Your task to perform on an android device: Go to network settings Image 0: 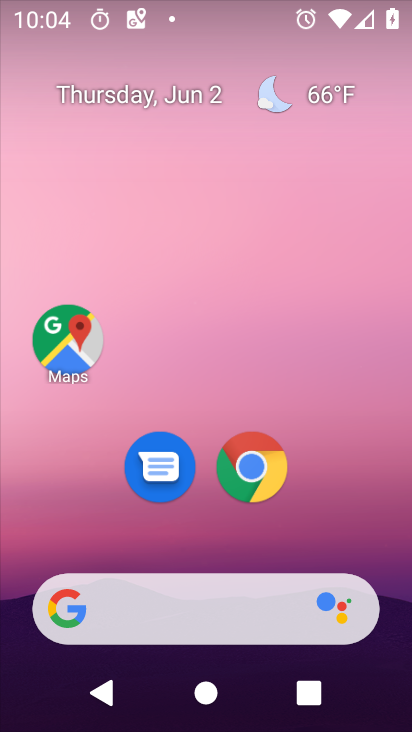
Step 0: drag from (55, 574) to (230, 193)
Your task to perform on an android device: Go to network settings Image 1: 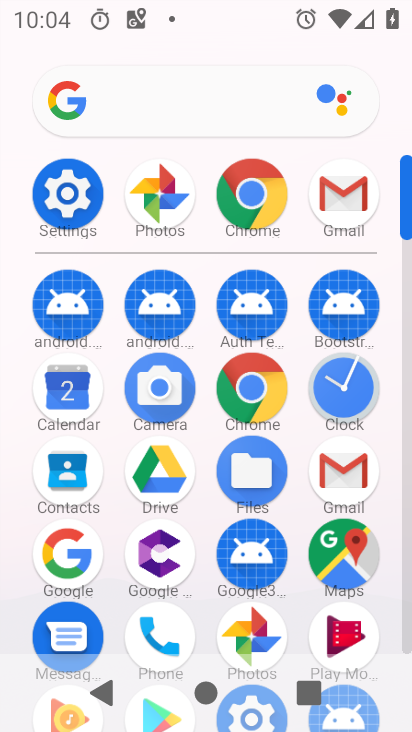
Step 1: click (64, 205)
Your task to perform on an android device: Go to network settings Image 2: 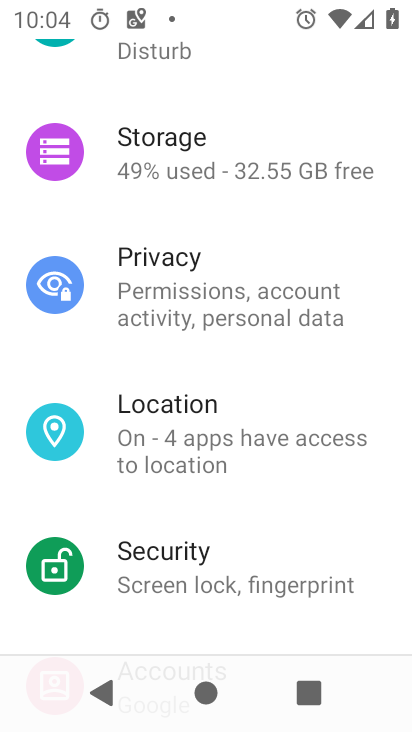
Step 2: drag from (178, 136) to (160, 633)
Your task to perform on an android device: Go to network settings Image 3: 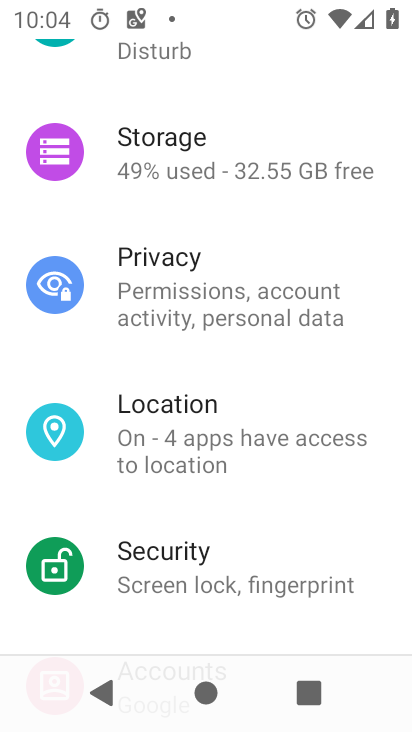
Step 3: drag from (93, 142) to (122, 618)
Your task to perform on an android device: Go to network settings Image 4: 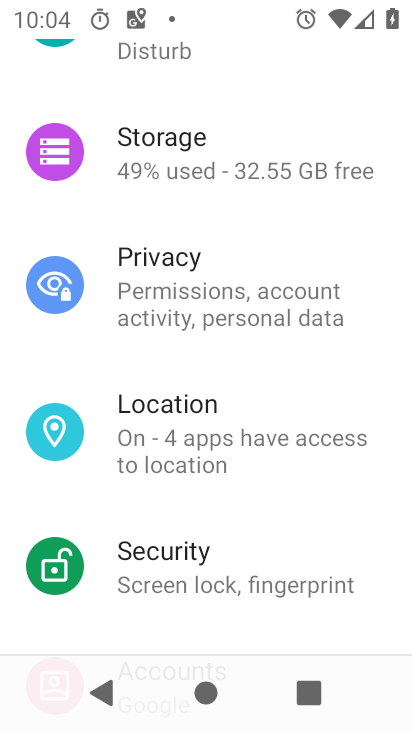
Step 4: drag from (123, 144) to (178, 494)
Your task to perform on an android device: Go to network settings Image 5: 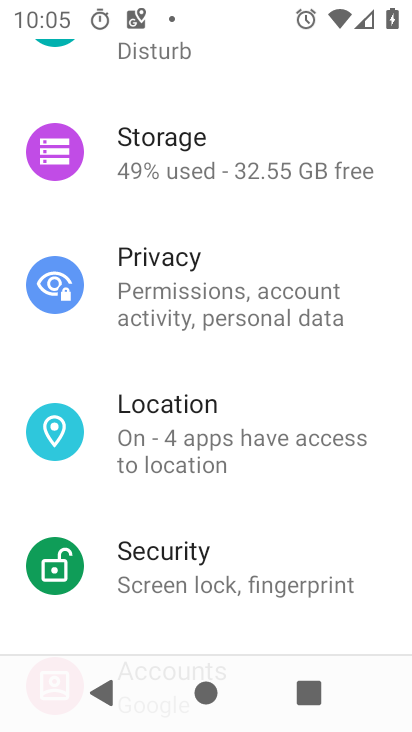
Step 5: drag from (276, 147) to (215, 585)
Your task to perform on an android device: Go to network settings Image 6: 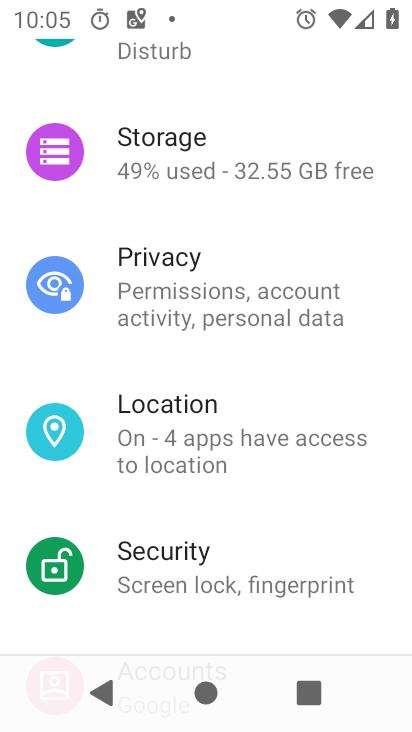
Step 6: drag from (155, 112) to (165, 594)
Your task to perform on an android device: Go to network settings Image 7: 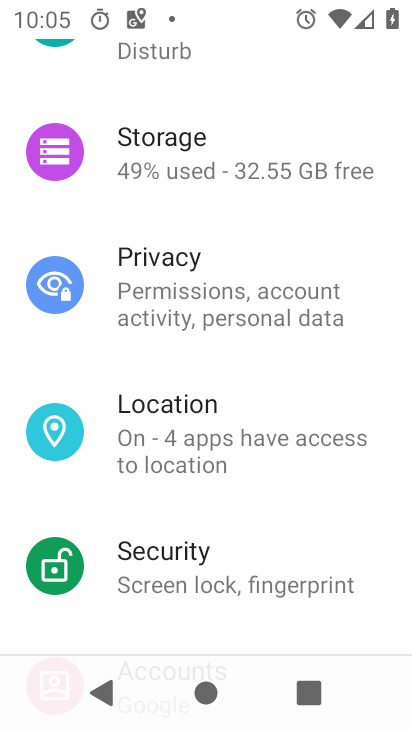
Step 7: drag from (4, 109) to (151, 559)
Your task to perform on an android device: Go to network settings Image 8: 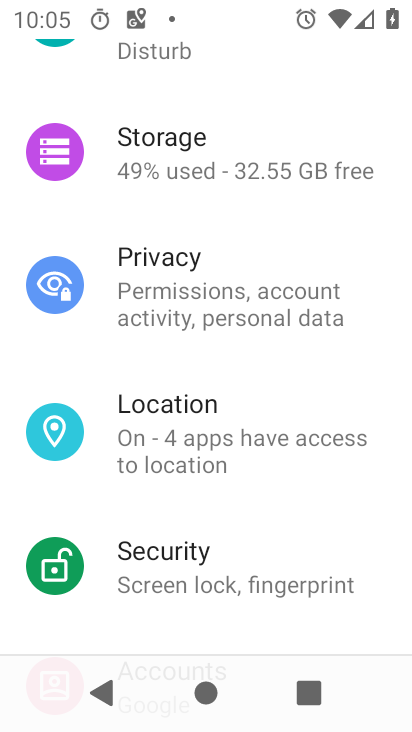
Step 8: drag from (394, 168) to (369, 192)
Your task to perform on an android device: Go to network settings Image 9: 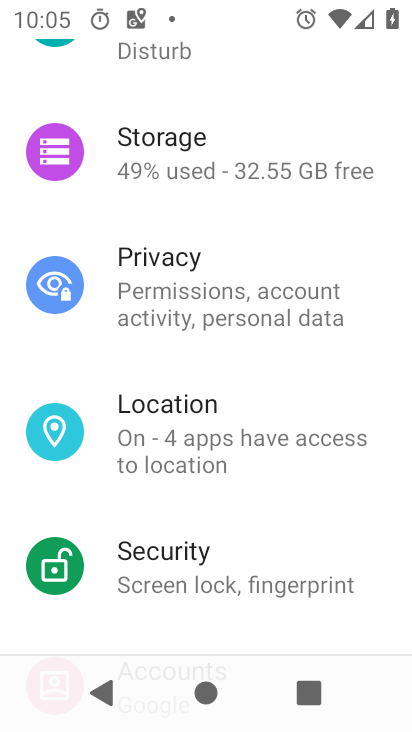
Step 9: drag from (161, 154) to (159, 609)
Your task to perform on an android device: Go to network settings Image 10: 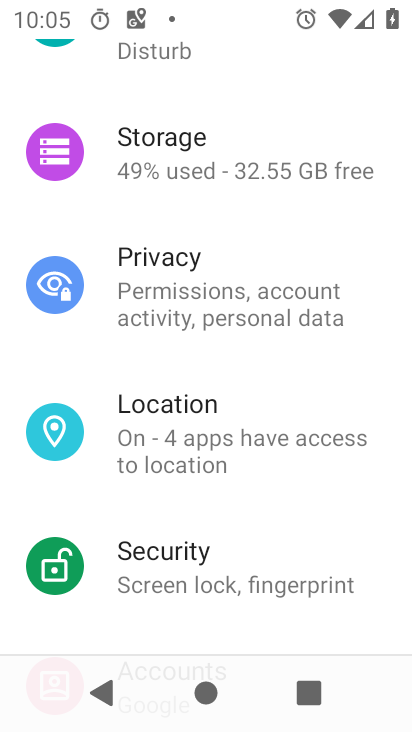
Step 10: drag from (142, 110) to (277, 727)
Your task to perform on an android device: Go to network settings Image 11: 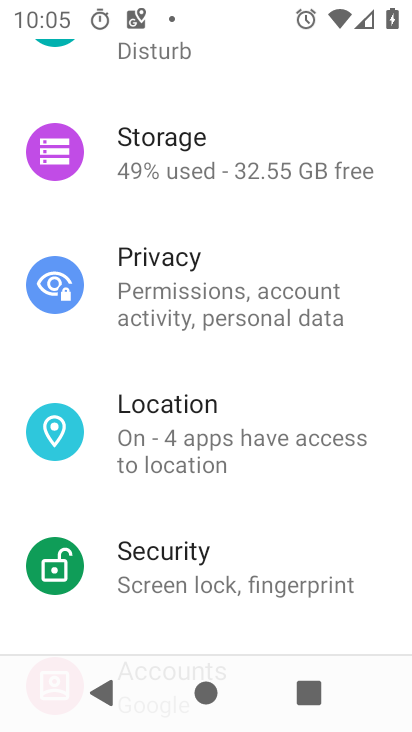
Step 11: drag from (310, 139) to (231, 521)
Your task to perform on an android device: Go to network settings Image 12: 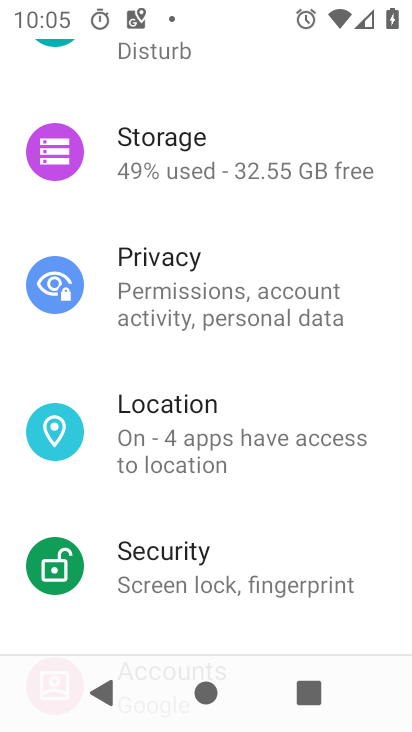
Step 12: drag from (125, 135) to (116, 526)
Your task to perform on an android device: Go to network settings Image 13: 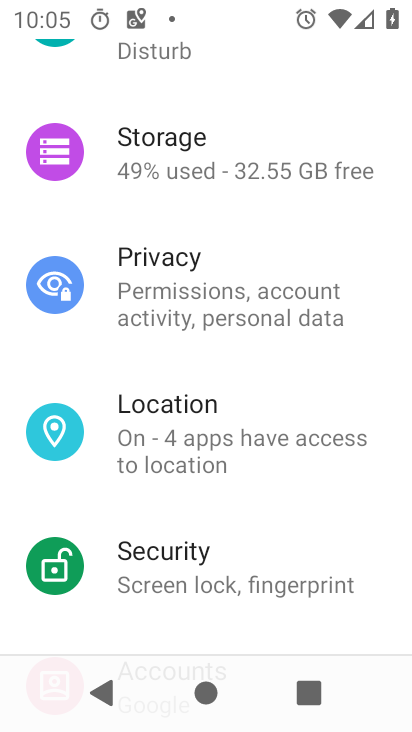
Step 13: drag from (408, 110) to (174, 542)
Your task to perform on an android device: Go to network settings Image 14: 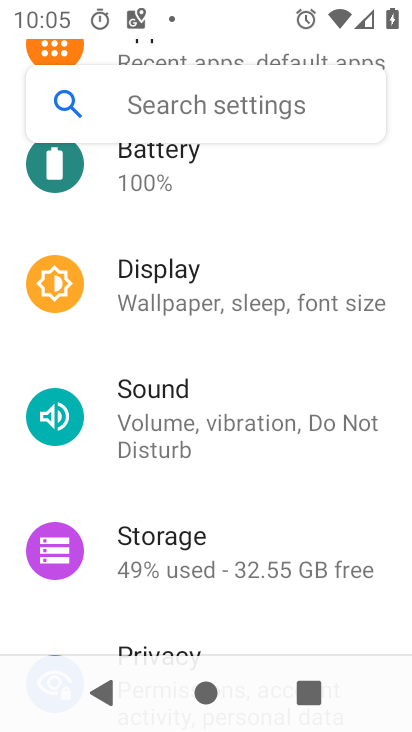
Step 14: drag from (273, 167) to (188, 442)
Your task to perform on an android device: Go to network settings Image 15: 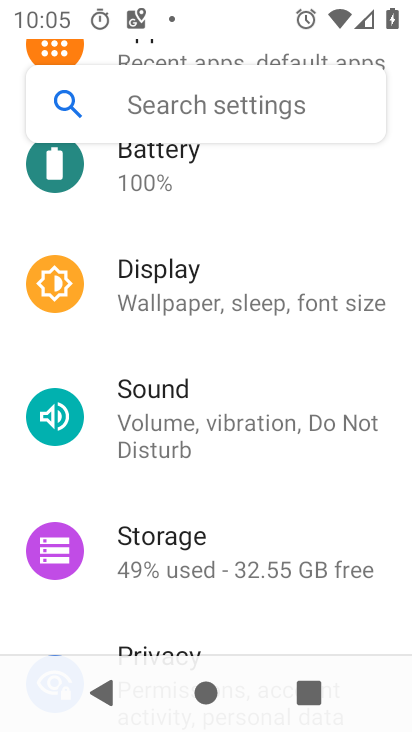
Step 15: drag from (315, 193) to (178, 570)
Your task to perform on an android device: Go to network settings Image 16: 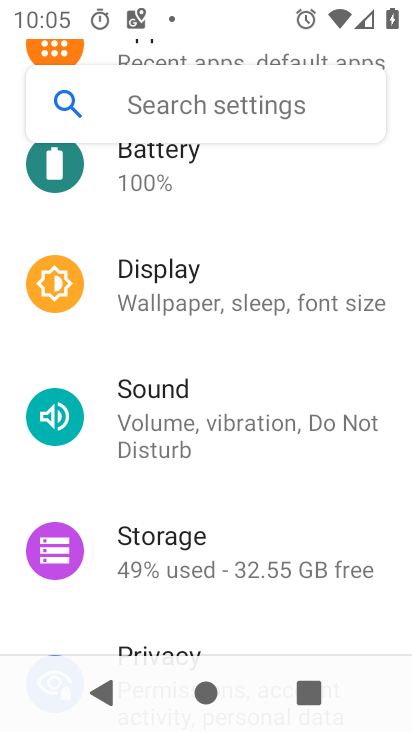
Step 16: drag from (398, 168) to (277, 621)
Your task to perform on an android device: Go to network settings Image 17: 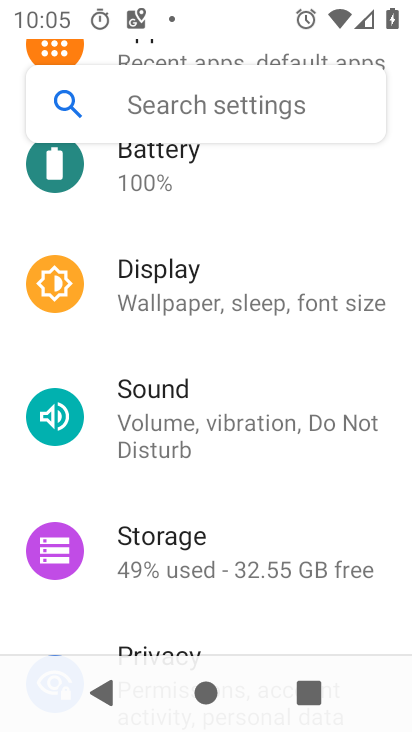
Step 17: drag from (30, 165) to (304, 588)
Your task to perform on an android device: Go to network settings Image 18: 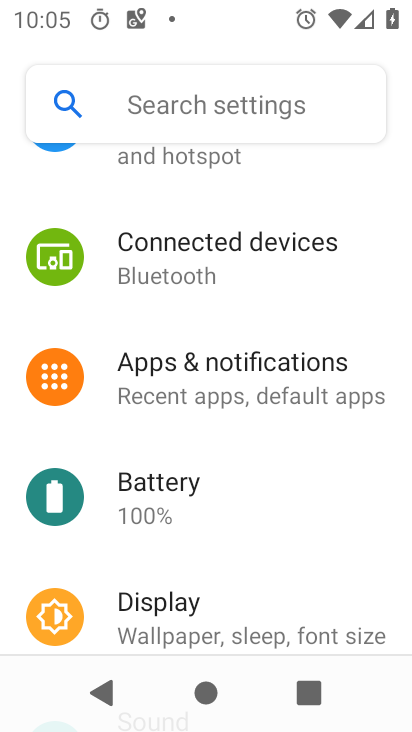
Step 18: drag from (321, 161) to (332, 501)
Your task to perform on an android device: Go to network settings Image 19: 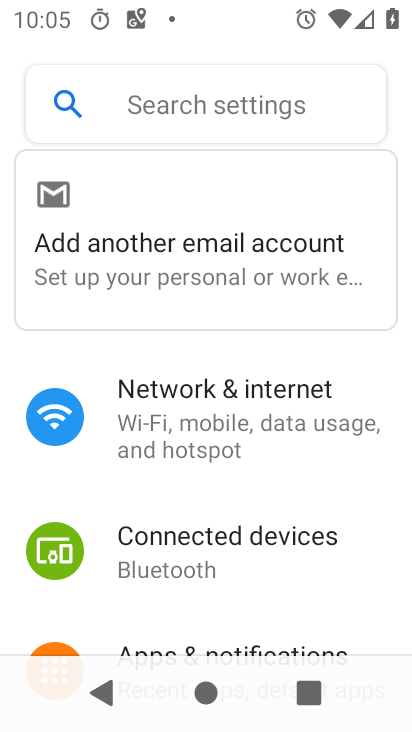
Step 19: click (176, 441)
Your task to perform on an android device: Go to network settings Image 20: 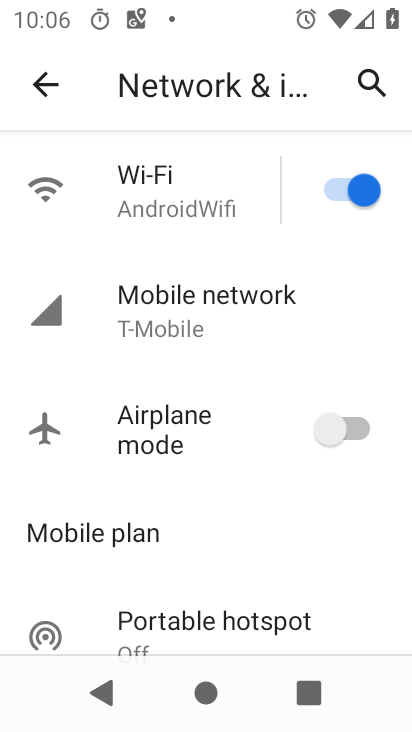
Step 20: click (130, 305)
Your task to perform on an android device: Go to network settings Image 21: 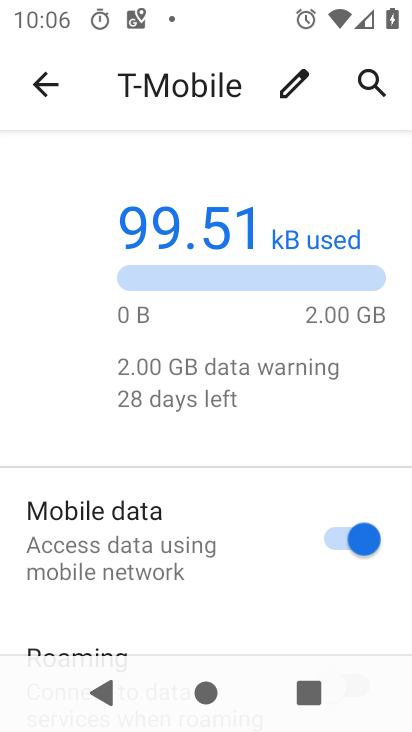
Step 21: task complete